Your task to perform on an android device: turn off sleep mode Image 0: 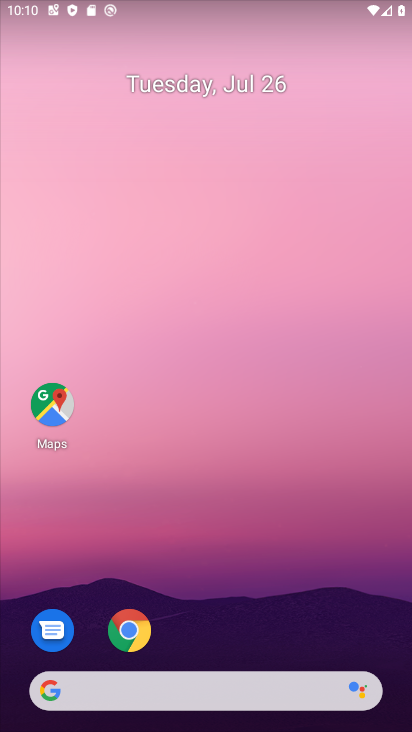
Step 0: drag from (382, 643) to (340, 91)
Your task to perform on an android device: turn off sleep mode Image 1: 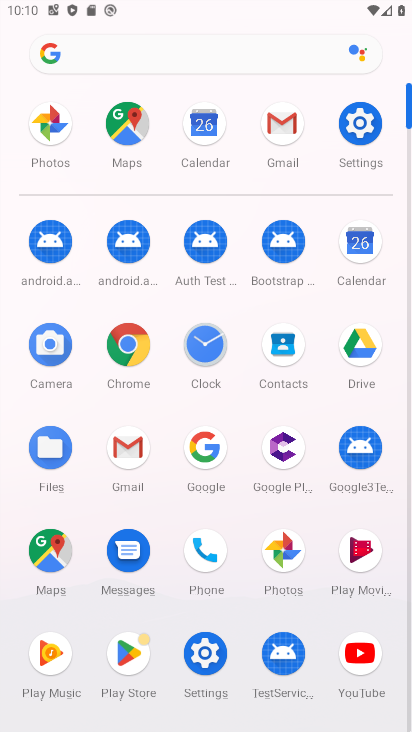
Step 1: click (204, 650)
Your task to perform on an android device: turn off sleep mode Image 2: 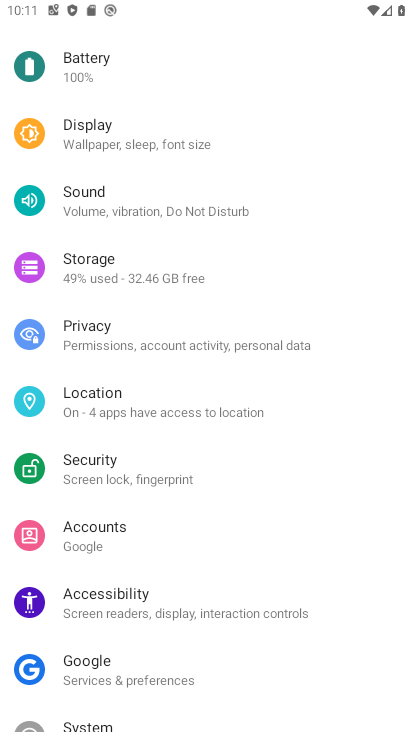
Step 2: click (92, 129)
Your task to perform on an android device: turn off sleep mode Image 3: 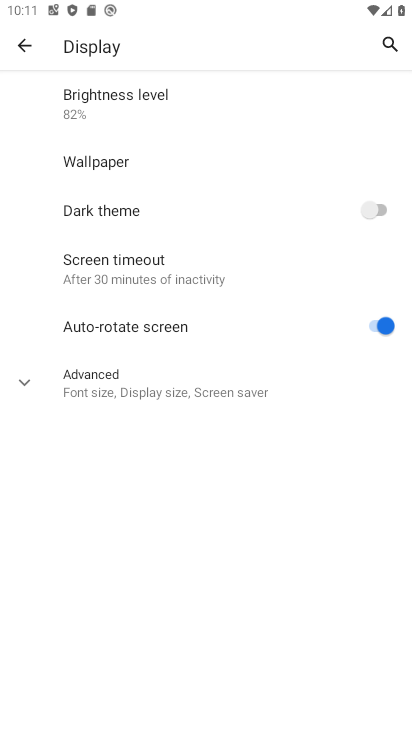
Step 3: click (25, 383)
Your task to perform on an android device: turn off sleep mode Image 4: 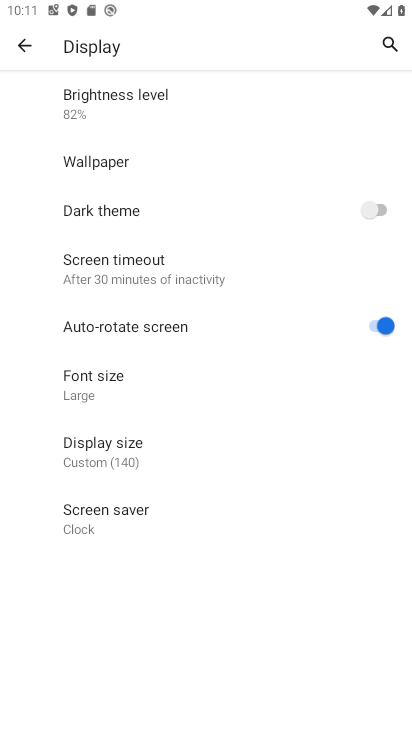
Step 4: task complete